Your task to perform on an android device: check storage Image 0: 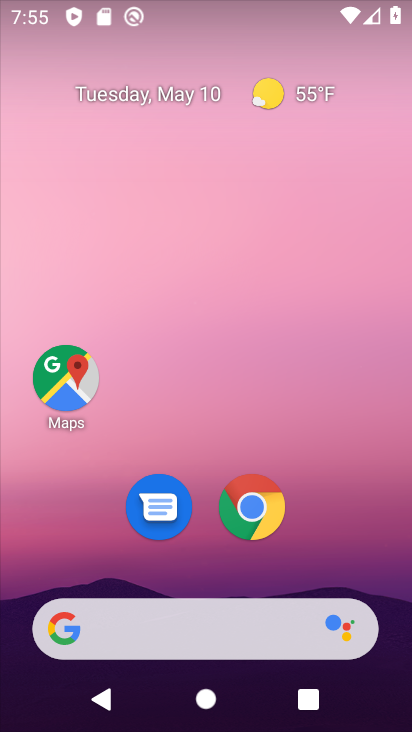
Step 0: drag from (99, 588) to (274, 108)
Your task to perform on an android device: check storage Image 1: 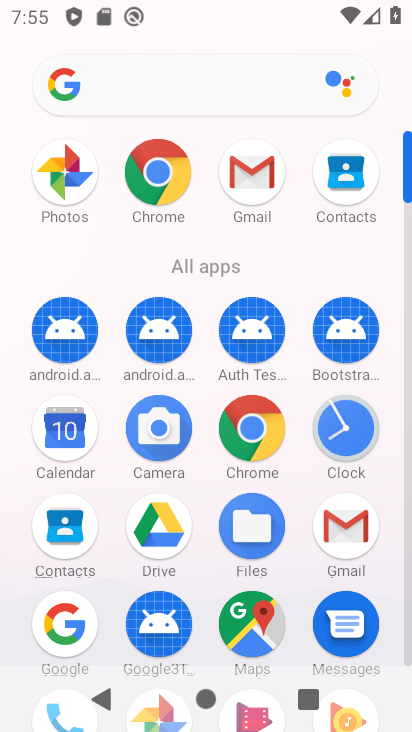
Step 1: drag from (130, 639) to (254, 312)
Your task to perform on an android device: check storage Image 2: 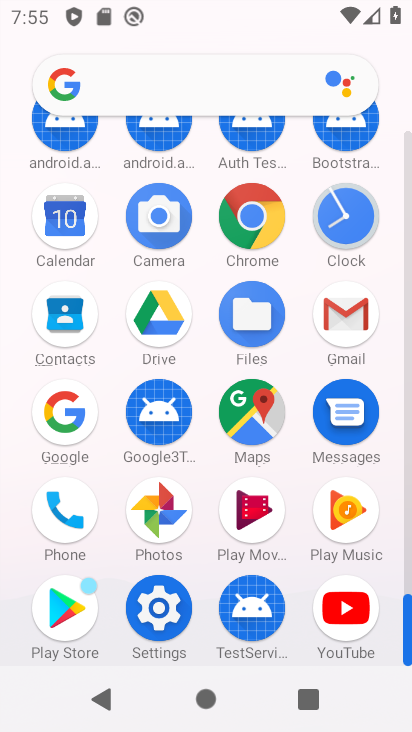
Step 2: click (169, 618)
Your task to perform on an android device: check storage Image 3: 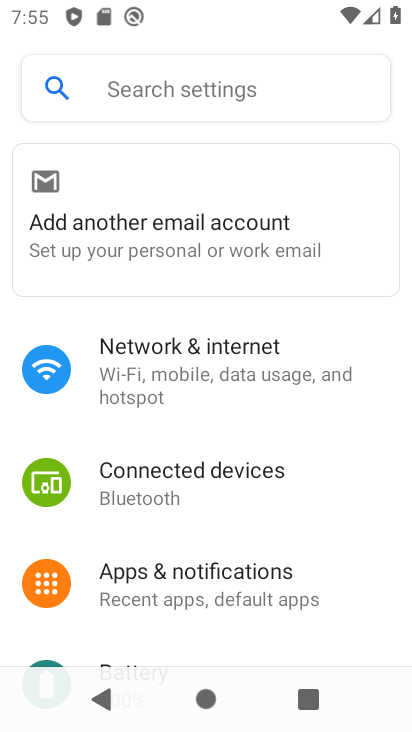
Step 3: drag from (231, 585) to (300, 194)
Your task to perform on an android device: check storage Image 4: 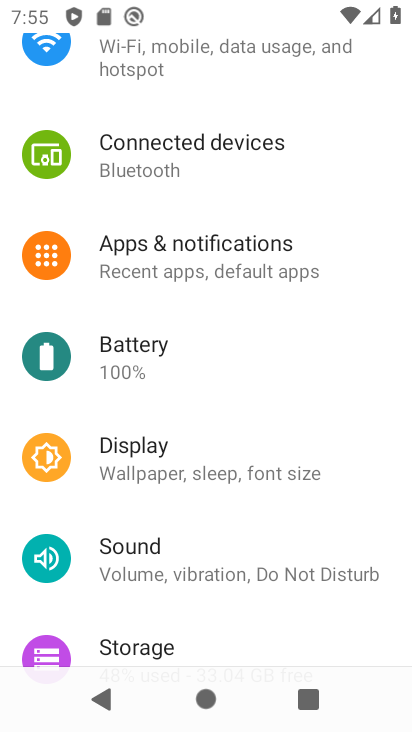
Step 4: drag from (211, 609) to (293, 285)
Your task to perform on an android device: check storage Image 5: 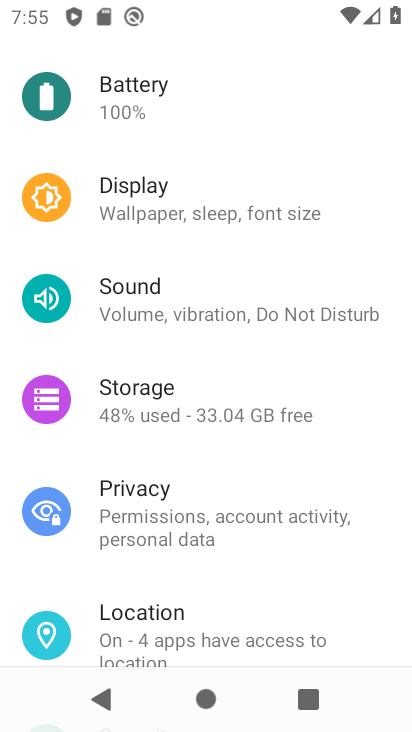
Step 5: drag from (204, 597) to (236, 400)
Your task to perform on an android device: check storage Image 6: 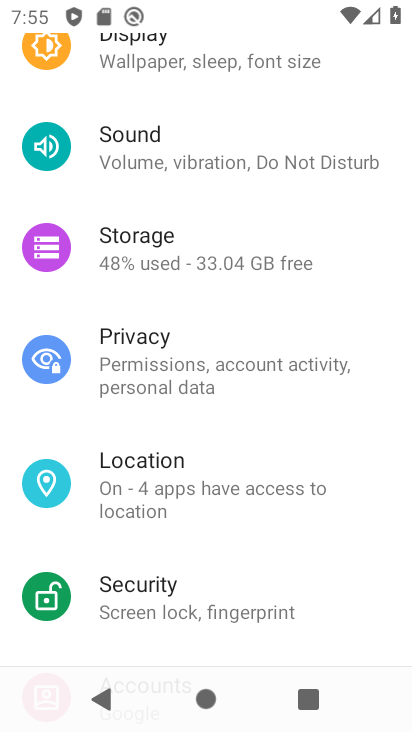
Step 6: click (174, 268)
Your task to perform on an android device: check storage Image 7: 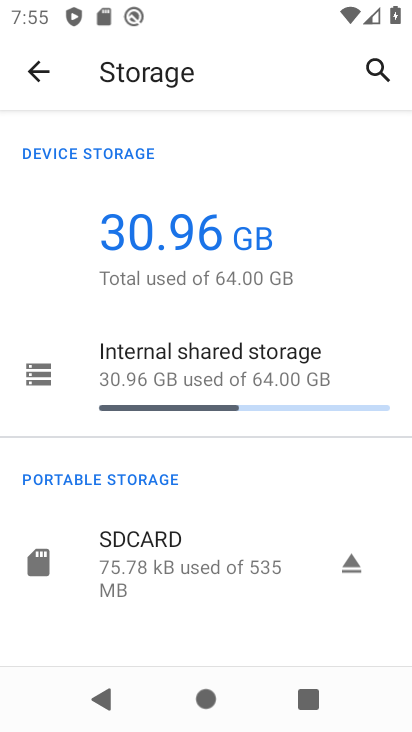
Step 7: click (54, 368)
Your task to perform on an android device: check storage Image 8: 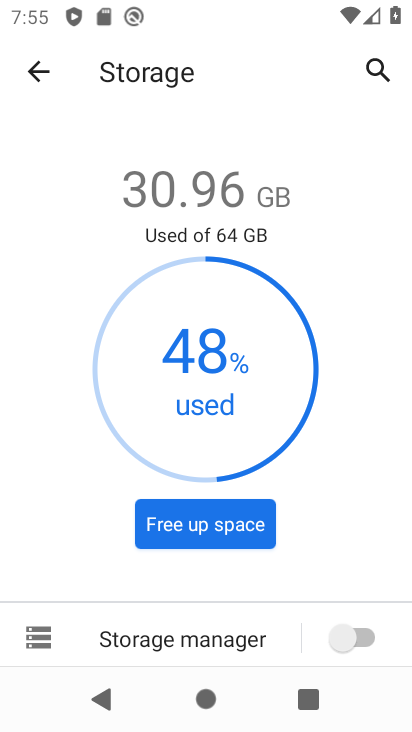
Step 8: task complete